Your task to perform on an android device: Open the calendar and show me this week's events Image 0: 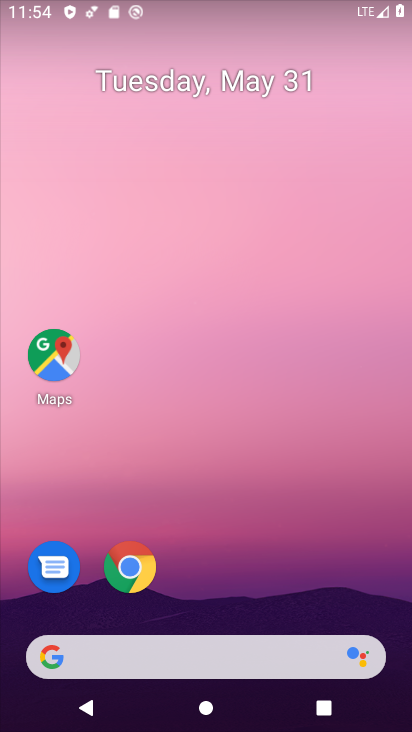
Step 0: drag from (242, 617) to (206, 297)
Your task to perform on an android device: Open the calendar and show me this week's events Image 1: 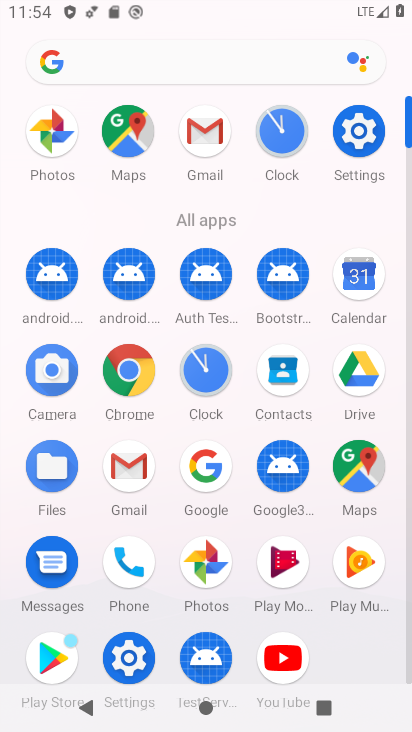
Step 1: click (357, 282)
Your task to perform on an android device: Open the calendar and show me this week's events Image 2: 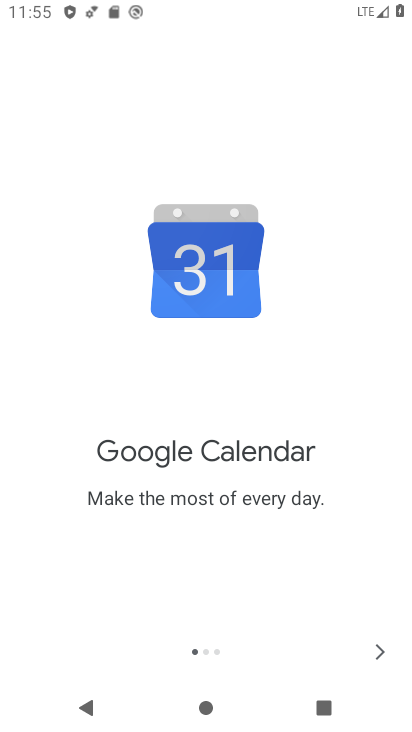
Step 2: click (375, 642)
Your task to perform on an android device: Open the calendar and show me this week's events Image 3: 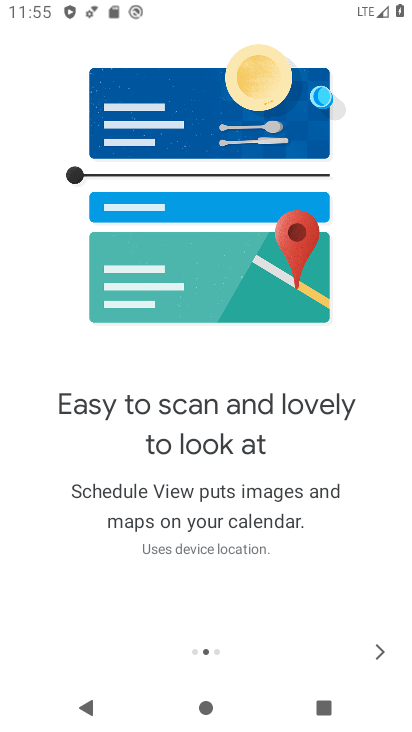
Step 3: click (375, 642)
Your task to perform on an android device: Open the calendar and show me this week's events Image 4: 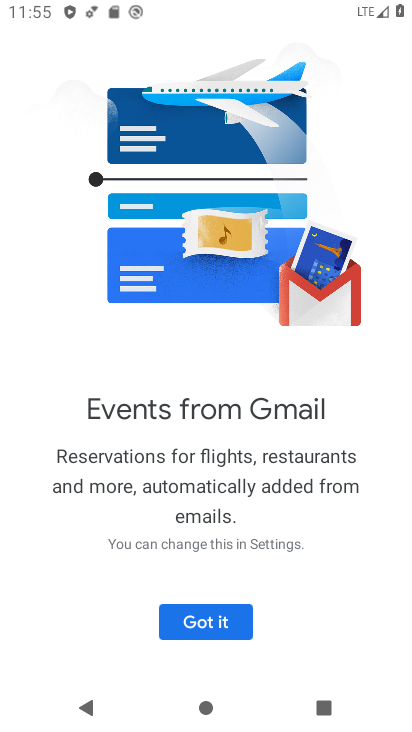
Step 4: click (375, 642)
Your task to perform on an android device: Open the calendar and show me this week's events Image 5: 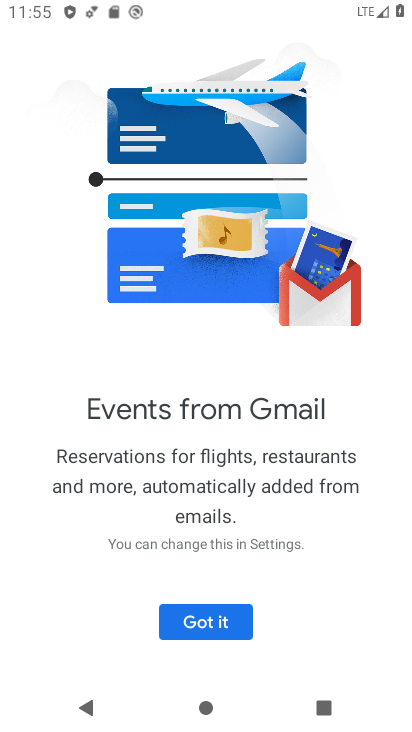
Step 5: click (187, 609)
Your task to perform on an android device: Open the calendar and show me this week's events Image 6: 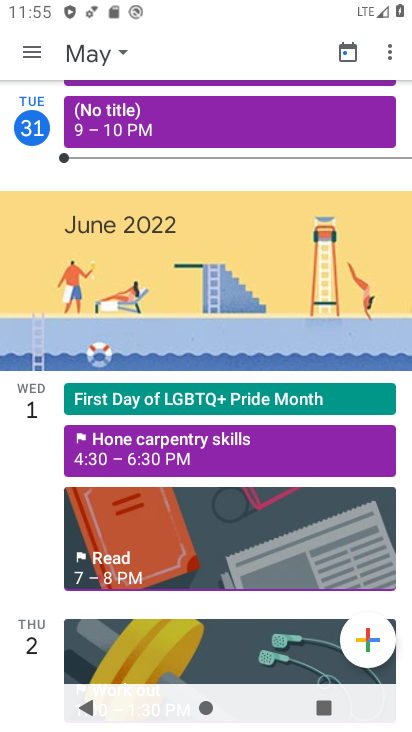
Step 6: click (27, 53)
Your task to perform on an android device: Open the calendar and show me this week's events Image 7: 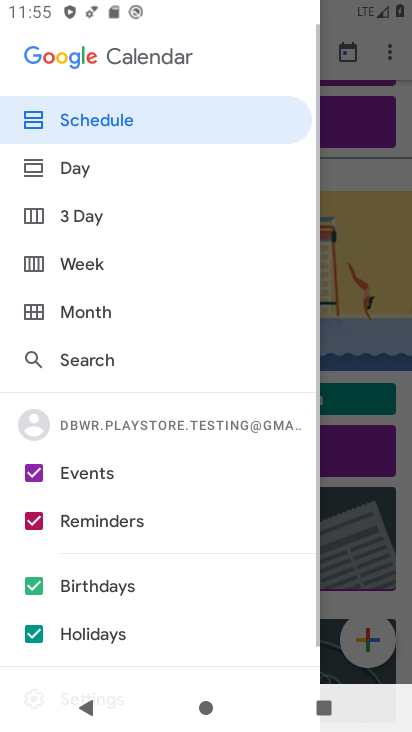
Step 7: click (94, 259)
Your task to perform on an android device: Open the calendar and show me this week's events Image 8: 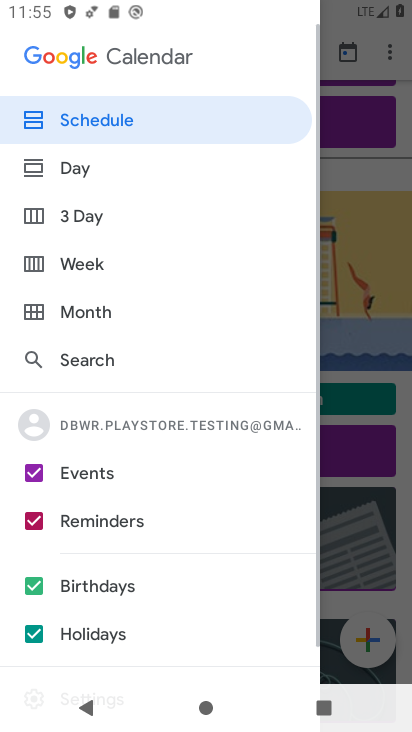
Step 8: click (31, 633)
Your task to perform on an android device: Open the calendar and show me this week's events Image 9: 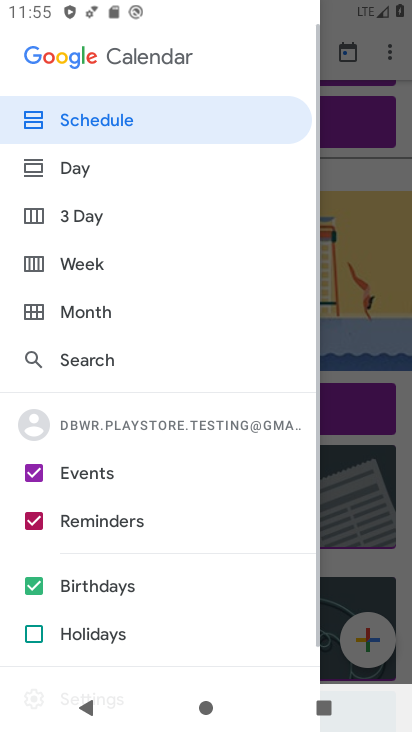
Step 9: click (30, 582)
Your task to perform on an android device: Open the calendar and show me this week's events Image 10: 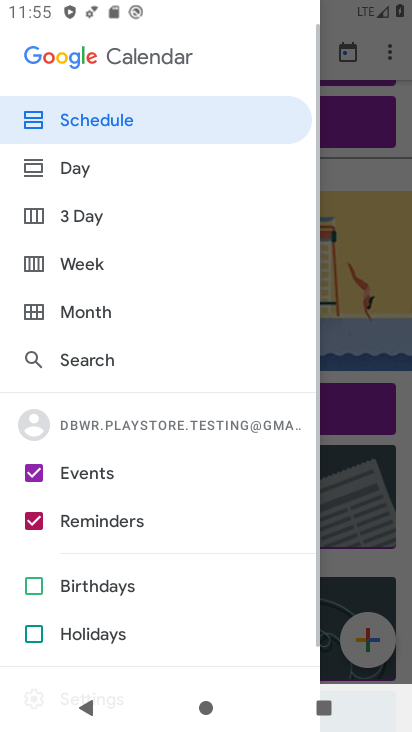
Step 10: click (34, 517)
Your task to perform on an android device: Open the calendar and show me this week's events Image 11: 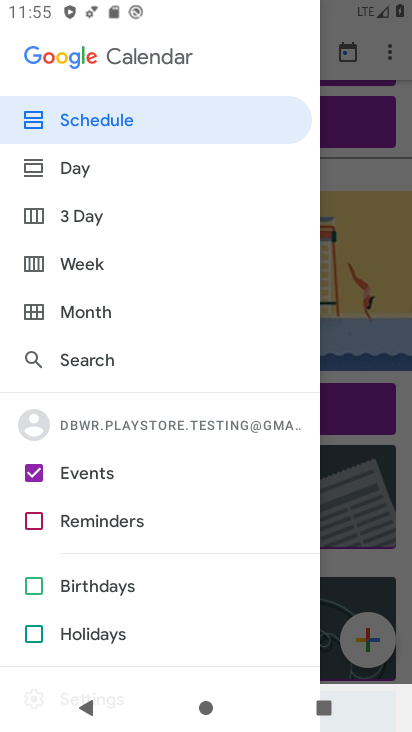
Step 11: click (86, 273)
Your task to perform on an android device: Open the calendar and show me this week's events Image 12: 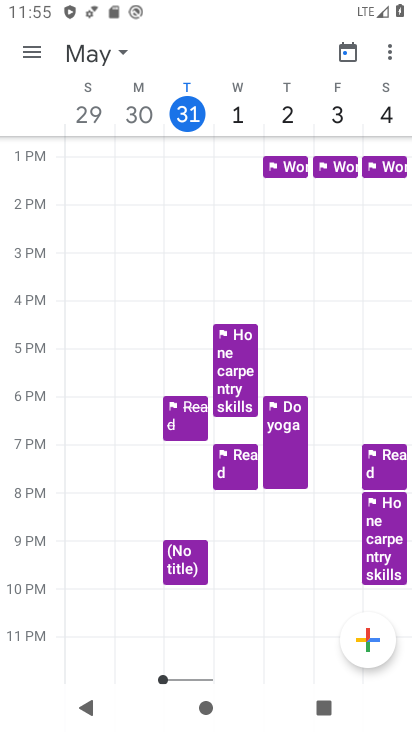
Step 12: task complete